Your task to perform on an android device: open app "Upside-Cash back on gas & food" Image 0: 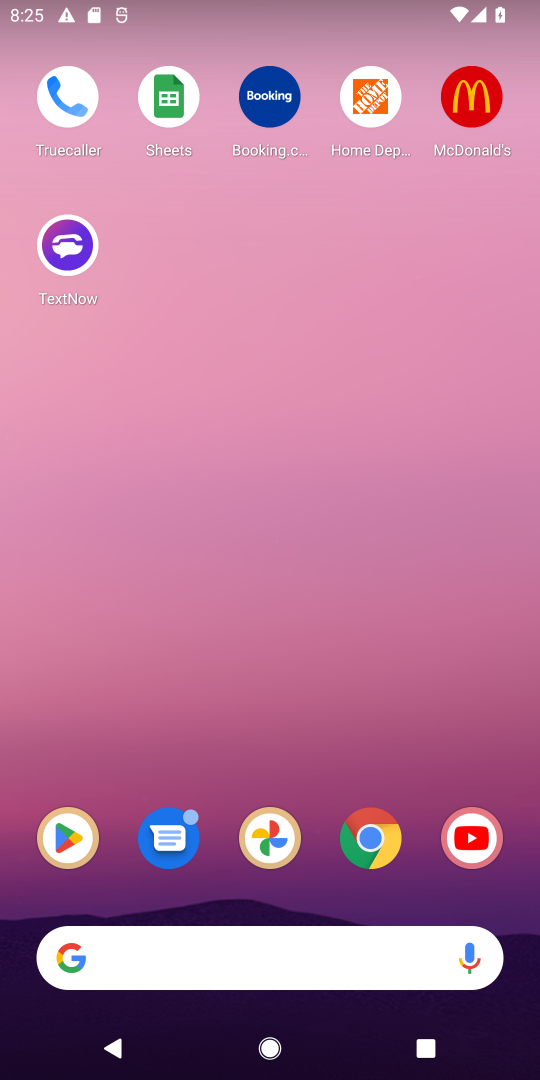
Step 0: drag from (227, 794) to (280, 156)
Your task to perform on an android device: open app "Upside-Cash back on gas & food" Image 1: 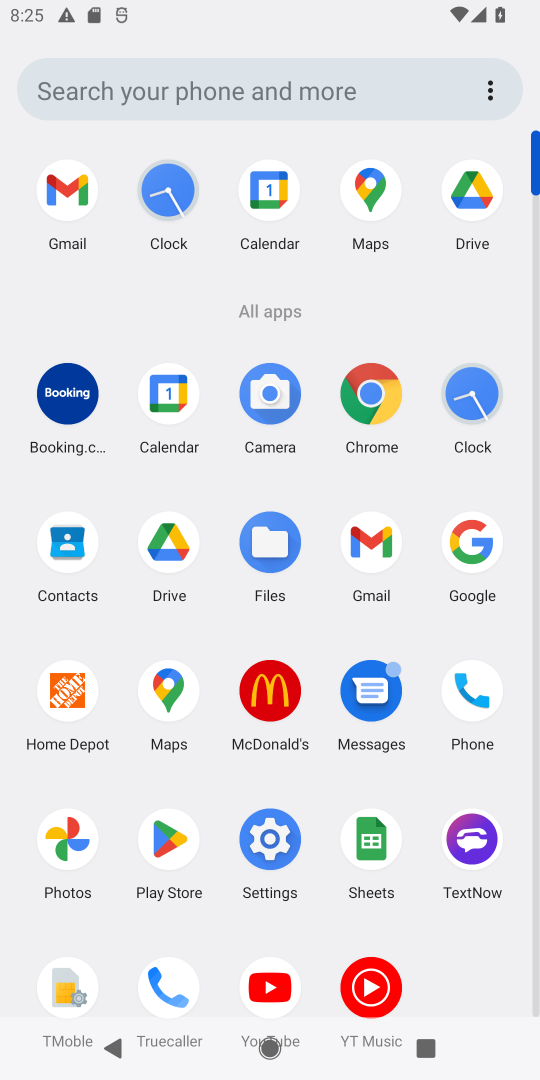
Step 1: click (169, 837)
Your task to perform on an android device: open app "Upside-Cash back on gas & food" Image 2: 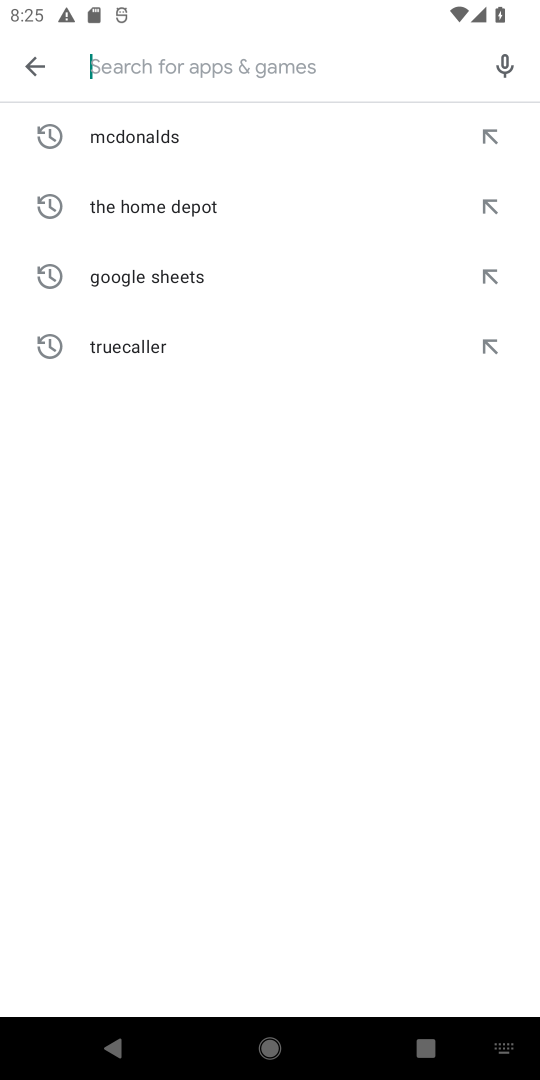
Step 2: type "Upside-cash back on gas & food"
Your task to perform on an android device: open app "Upside-Cash back on gas & food" Image 3: 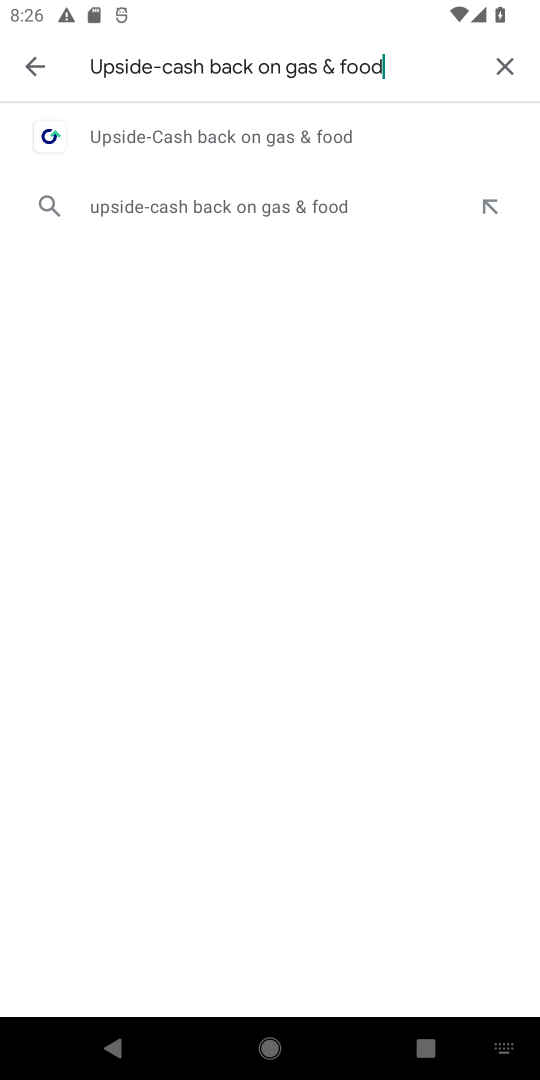
Step 3: click (218, 130)
Your task to perform on an android device: open app "Upside-Cash back on gas & food" Image 4: 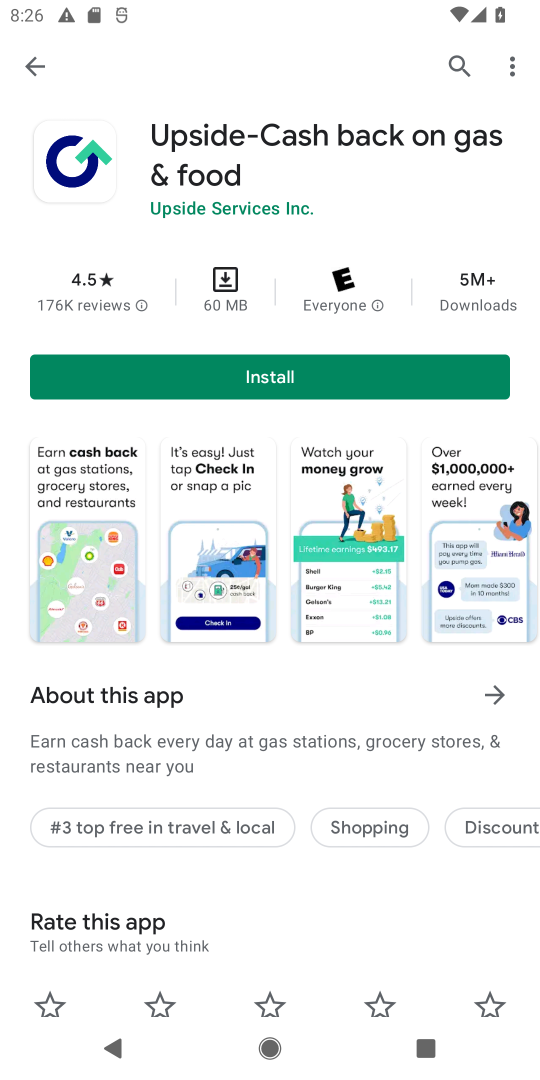
Step 4: task complete